Your task to perform on an android device: turn on javascript in the chrome app Image 0: 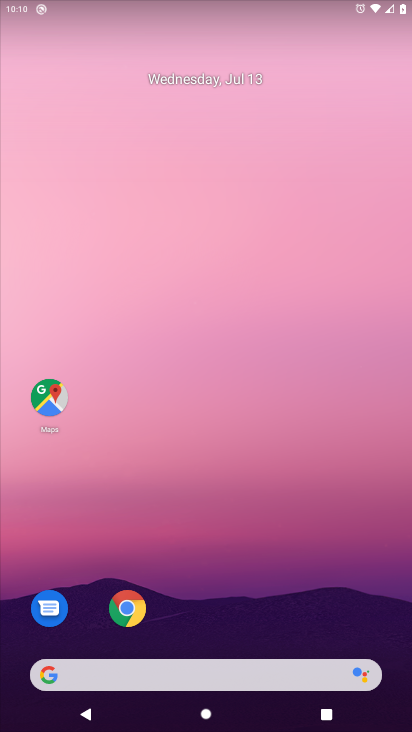
Step 0: click (143, 607)
Your task to perform on an android device: turn on javascript in the chrome app Image 1: 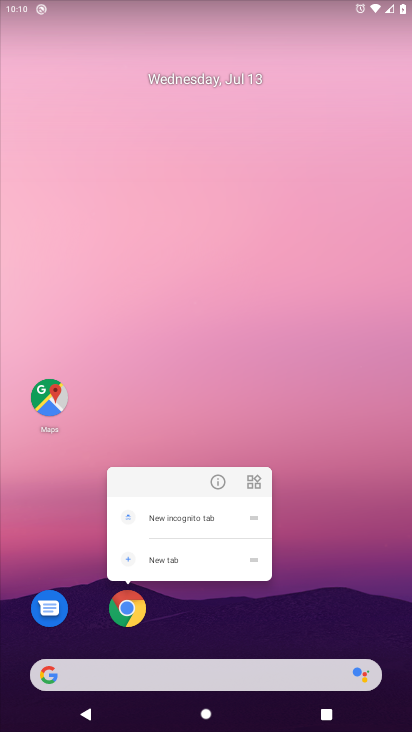
Step 1: click (146, 601)
Your task to perform on an android device: turn on javascript in the chrome app Image 2: 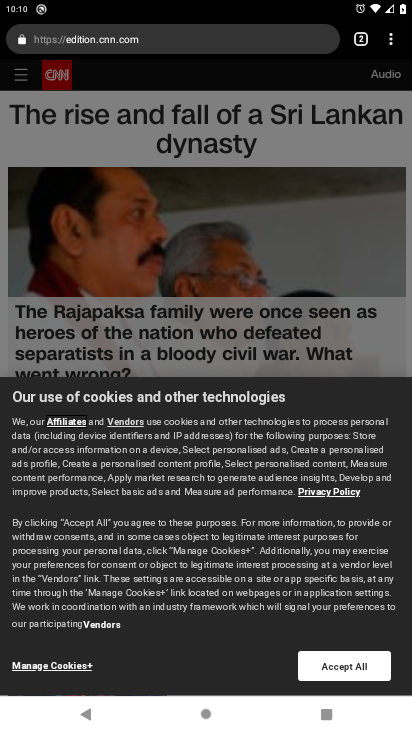
Step 2: click (394, 45)
Your task to perform on an android device: turn on javascript in the chrome app Image 3: 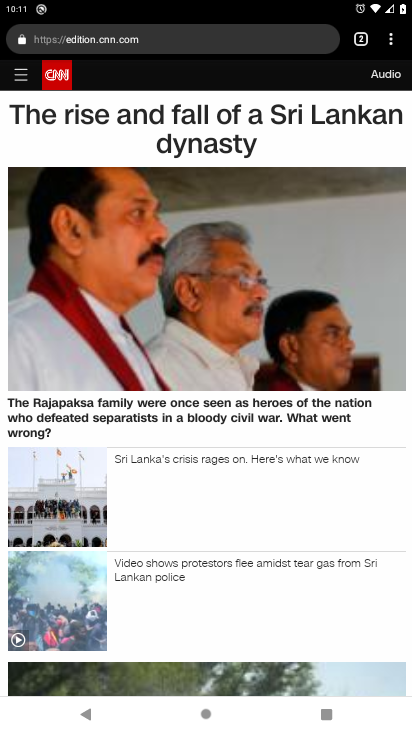
Step 3: click (389, 35)
Your task to perform on an android device: turn on javascript in the chrome app Image 4: 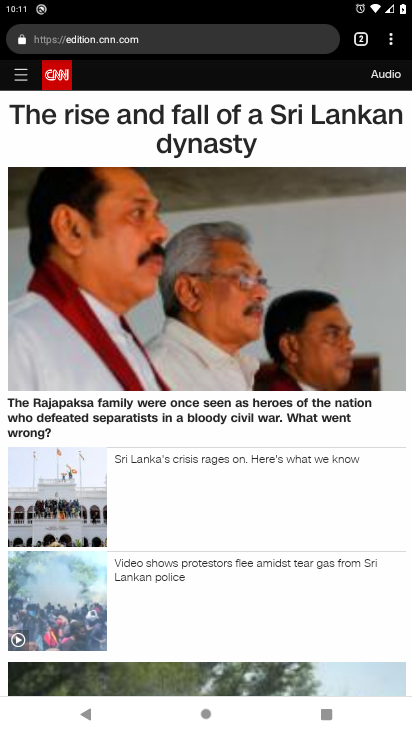
Step 4: task complete